Your task to perform on an android device: check google app version Image 0: 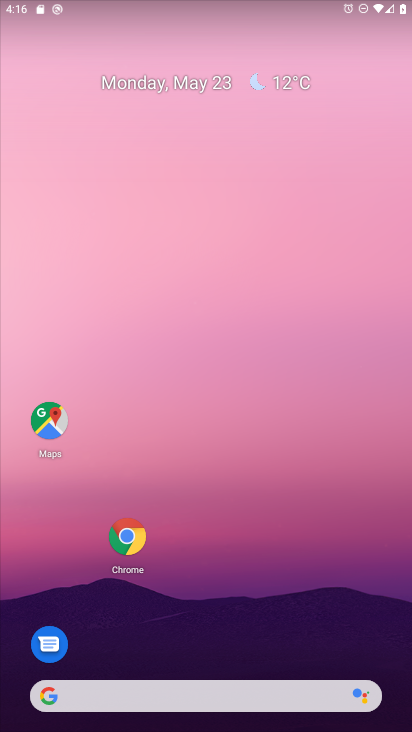
Step 0: drag from (328, 556) to (233, 83)
Your task to perform on an android device: check google app version Image 1: 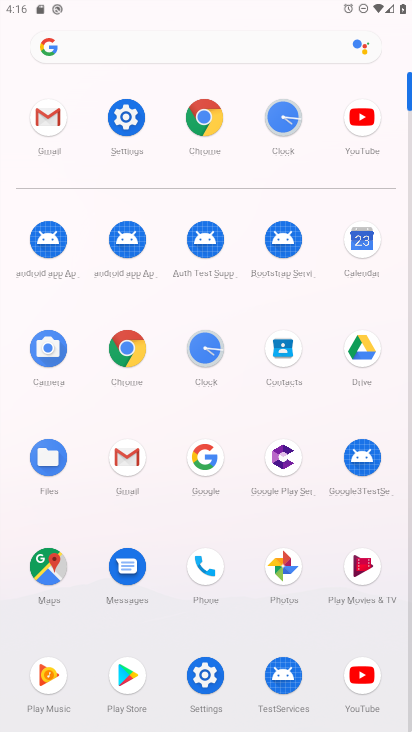
Step 1: click (206, 454)
Your task to perform on an android device: check google app version Image 2: 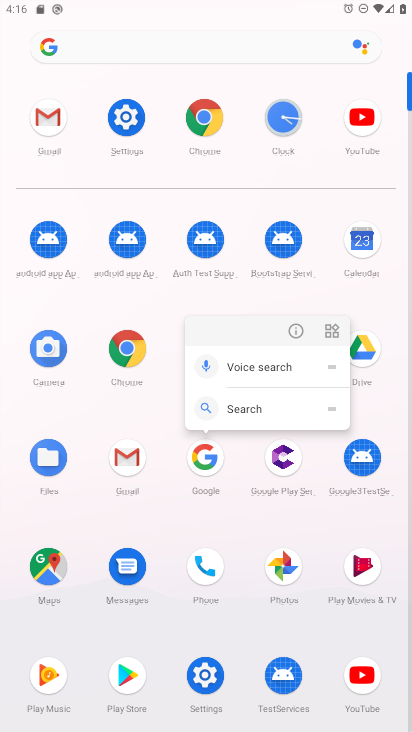
Step 2: click (288, 334)
Your task to perform on an android device: check google app version Image 3: 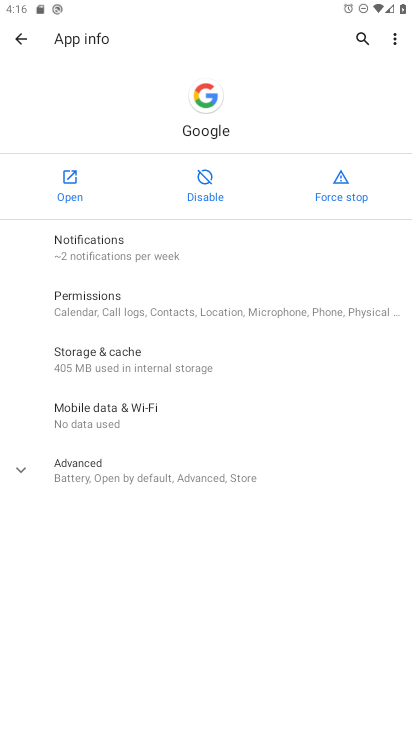
Step 3: click (171, 481)
Your task to perform on an android device: check google app version Image 4: 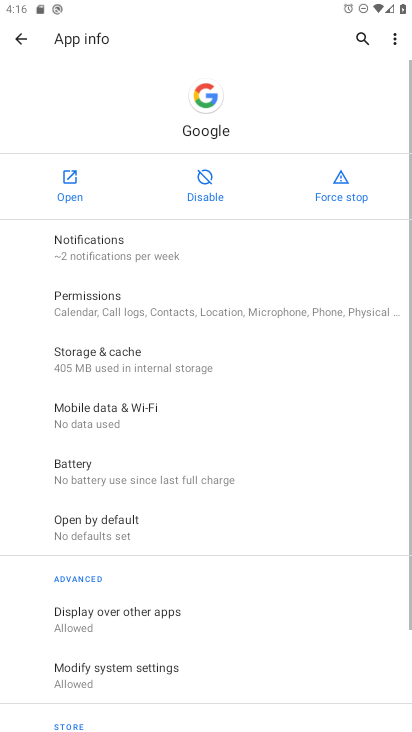
Step 4: task complete